Your task to perform on an android device: Go to ESPN.com Image 0: 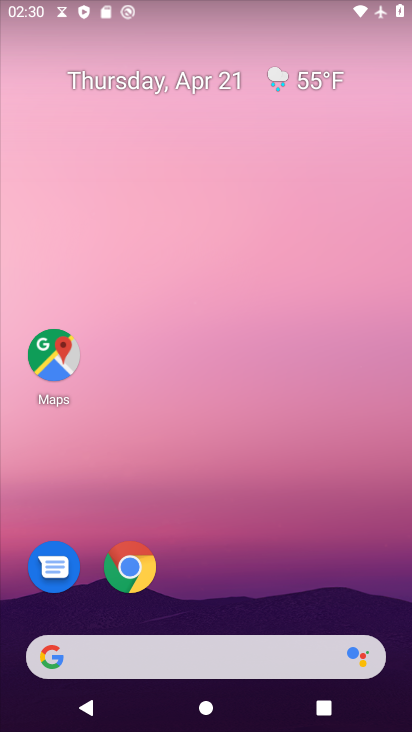
Step 0: drag from (224, 625) to (373, 67)
Your task to perform on an android device: Go to ESPN.com Image 1: 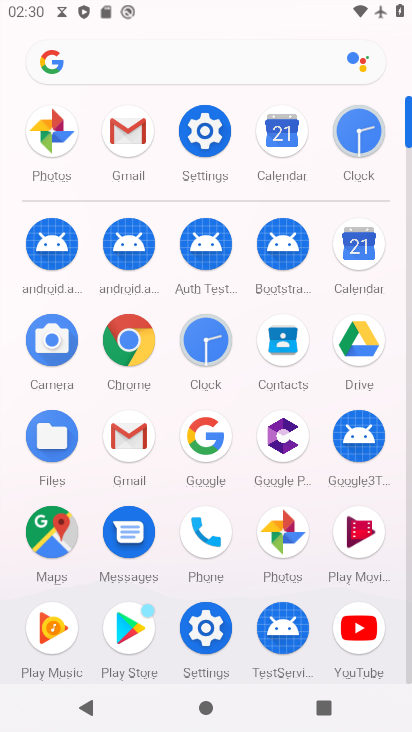
Step 1: click (118, 343)
Your task to perform on an android device: Go to ESPN.com Image 2: 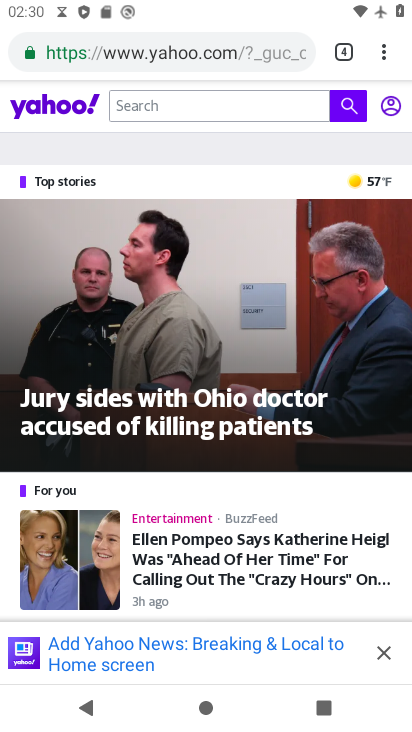
Step 2: click (371, 57)
Your task to perform on an android device: Go to ESPN.com Image 3: 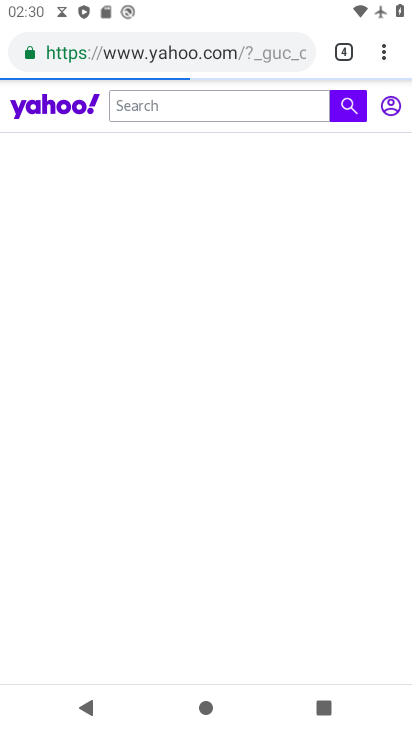
Step 3: click (375, 57)
Your task to perform on an android device: Go to ESPN.com Image 4: 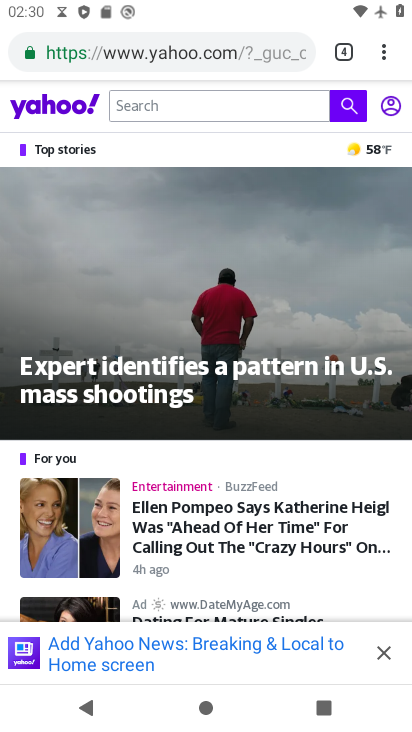
Step 4: click (377, 59)
Your task to perform on an android device: Go to ESPN.com Image 5: 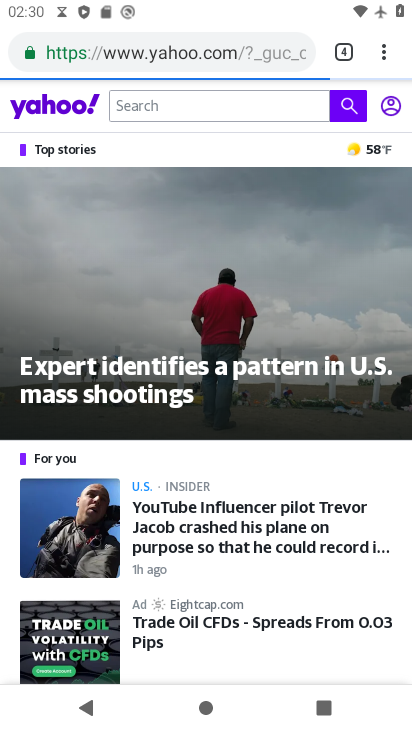
Step 5: click (375, 54)
Your task to perform on an android device: Go to ESPN.com Image 6: 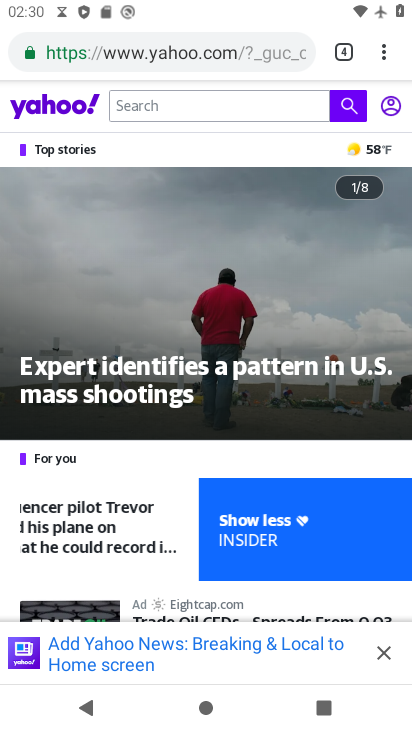
Step 6: click (380, 66)
Your task to perform on an android device: Go to ESPN.com Image 7: 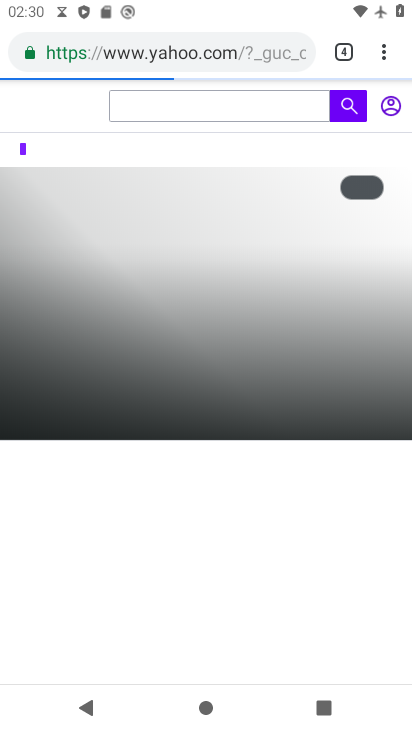
Step 7: click (372, 56)
Your task to perform on an android device: Go to ESPN.com Image 8: 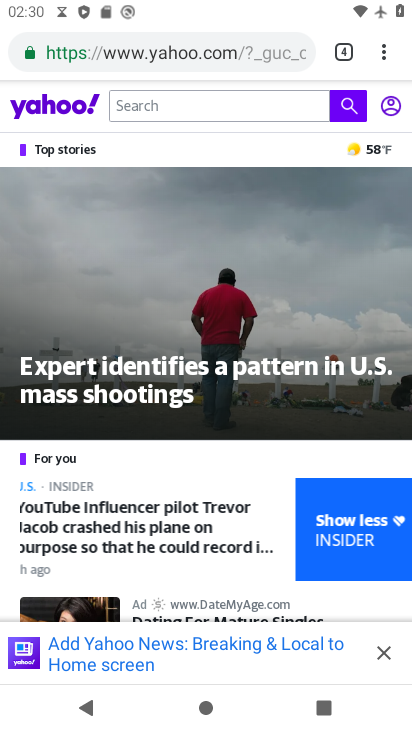
Step 8: click (391, 61)
Your task to perform on an android device: Go to ESPN.com Image 9: 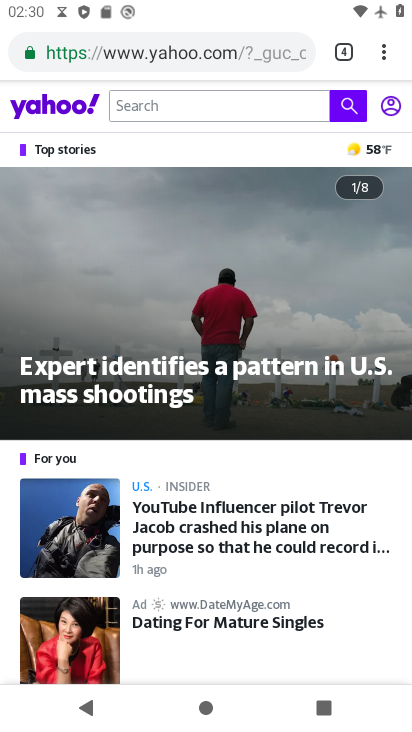
Step 9: click (386, 63)
Your task to perform on an android device: Go to ESPN.com Image 10: 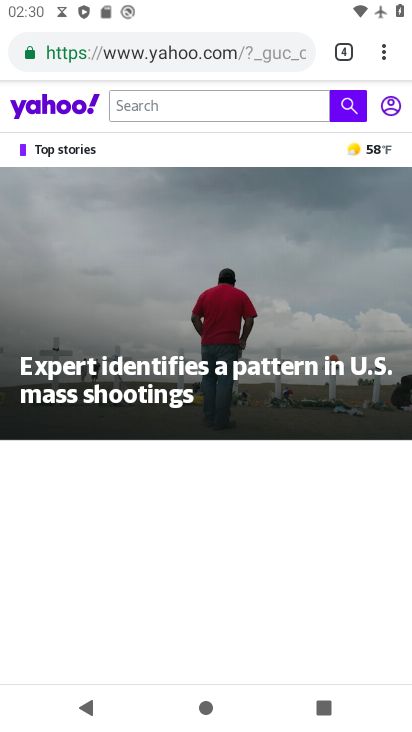
Step 10: click (382, 64)
Your task to perform on an android device: Go to ESPN.com Image 11: 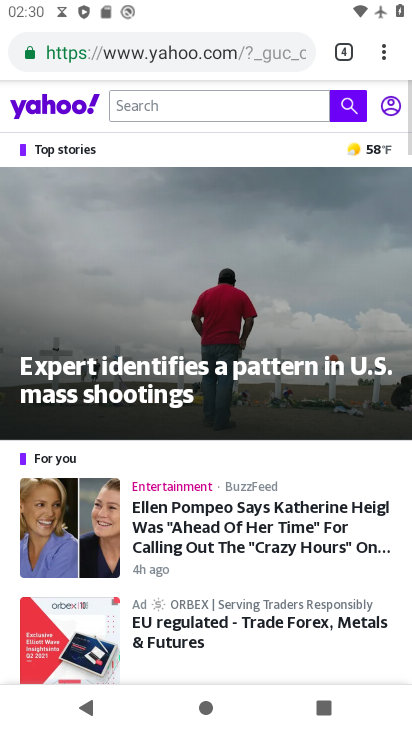
Step 11: click (381, 70)
Your task to perform on an android device: Go to ESPN.com Image 12: 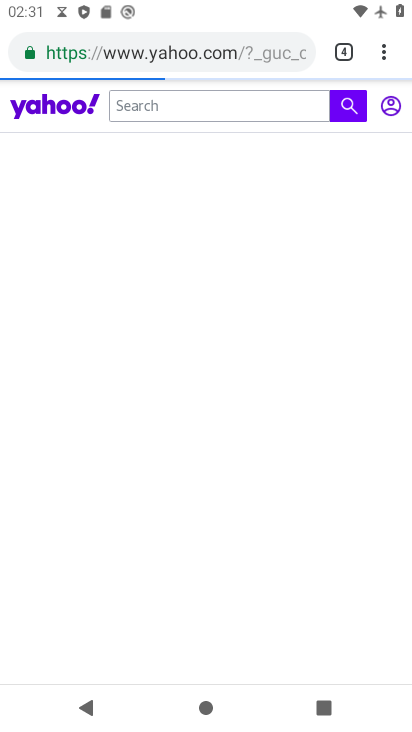
Step 12: click (380, 67)
Your task to perform on an android device: Go to ESPN.com Image 13: 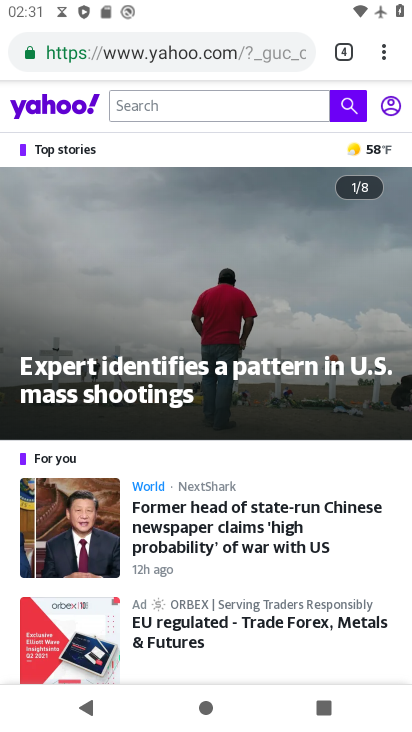
Step 13: click (371, 66)
Your task to perform on an android device: Go to ESPN.com Image 14: 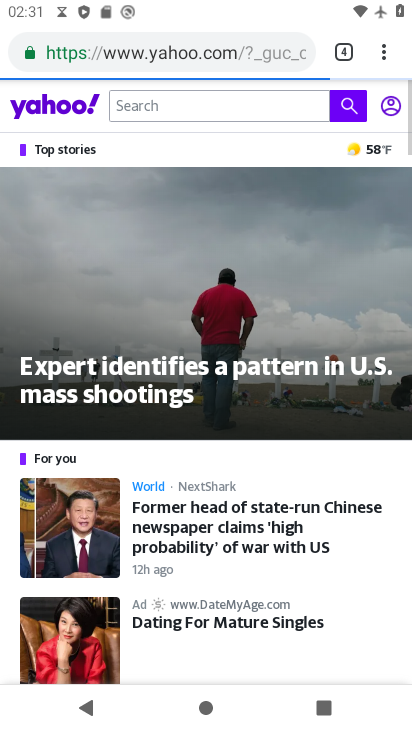
Step 14: click (378, 57)
Your task to perform on an android device: Go to ESPN.com Image 15: 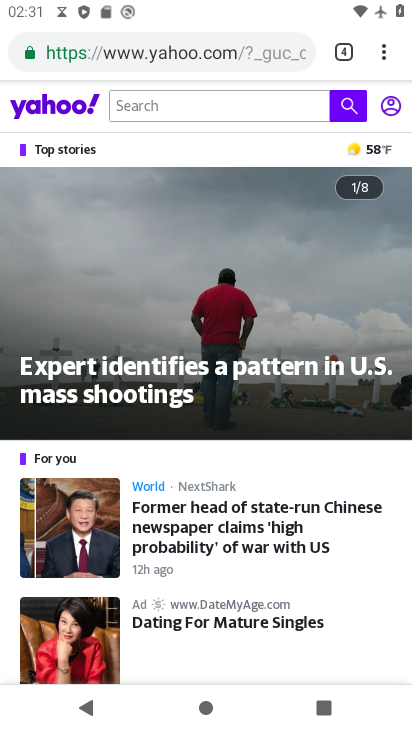
Step 15: click (370, 64)
Your task to perform on an android device: Go to ESPN.com Image 16: 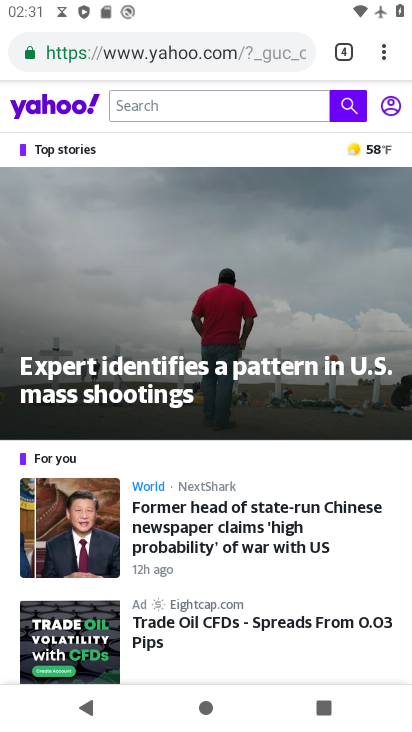
Step 16: click (370, 58)
Your task to perform on an android device: Go to ESPN.com Image 17: 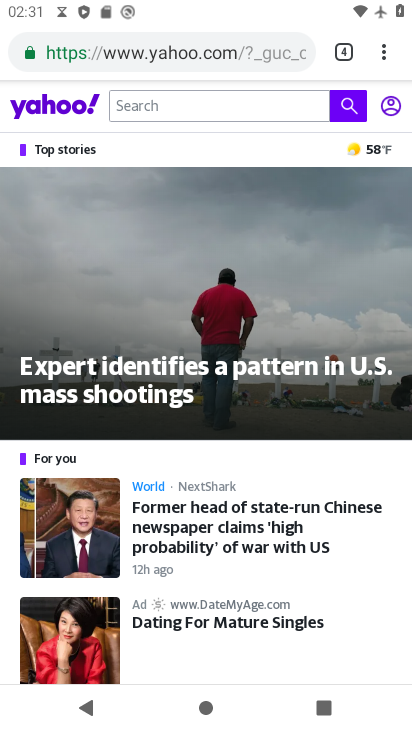
Step 17: click (364, 59)
Your task to perform on an android device: Go to ESPN.com Image 18: 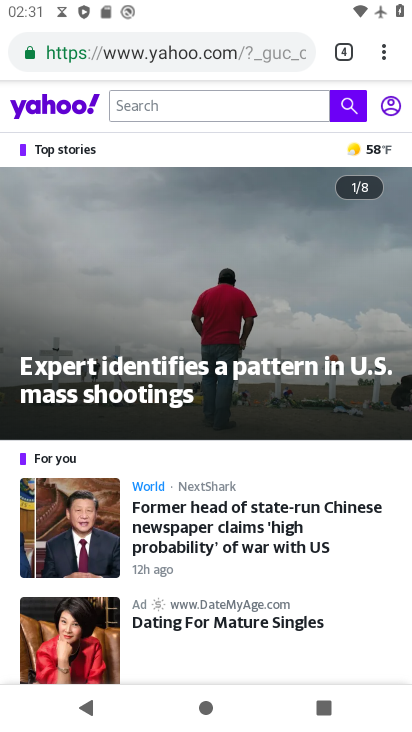
Step 18: click (375, 58)
Your task to perform on an android device: Go to ESPN.com Image 19: 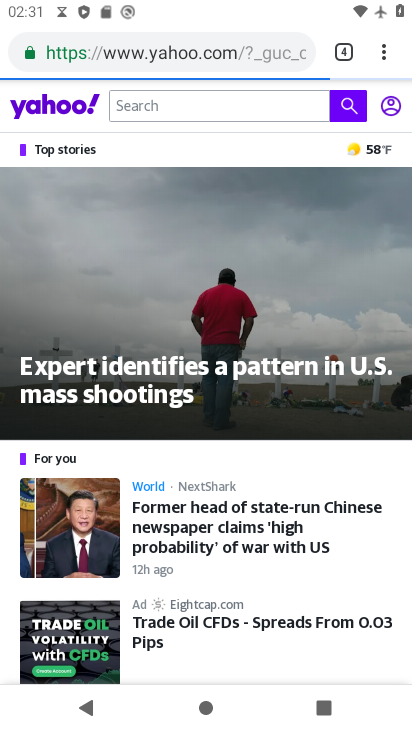
Step 19: click (385, 61)
Your task to perform on an android device: Go to ESPN.com Image 20: 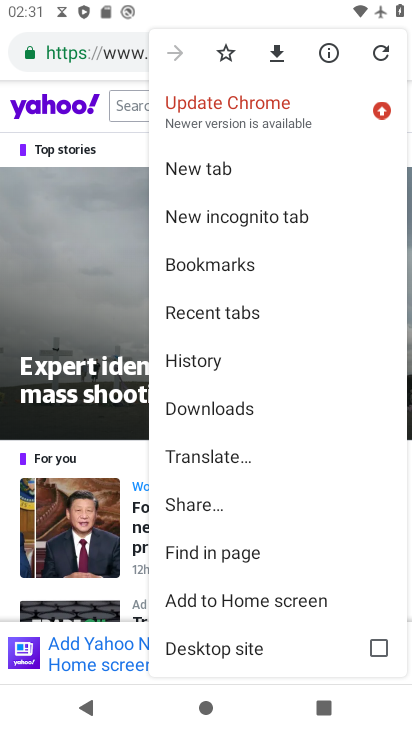
Step 20: click (214, 169)
Your task to perform on an android device: Go to ESPN.com Image 21: 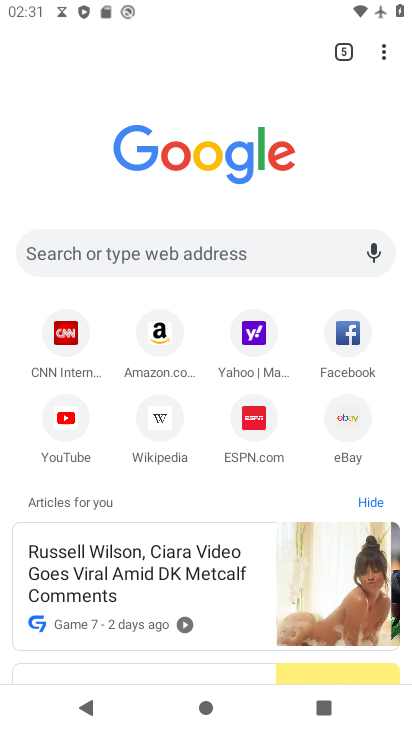
Step 21: click (261, 413)
Your task to perform on an android device: Go to ESPN.com Image 22: 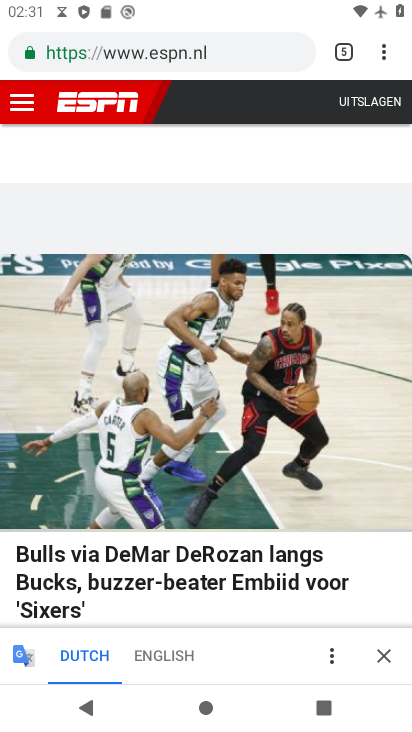
Step 22: task complete